Your task to perform on an android device: Open Google Chrome and click the shortcut for Amazon.com Image 0: 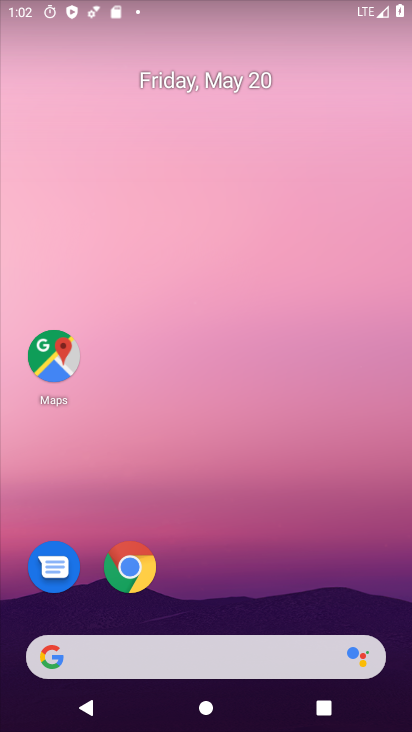
Step 0: click (143, 561)
Your task to perform on an android device: Open Google Chrome and click the shortcut for Amazon.com Image 1: 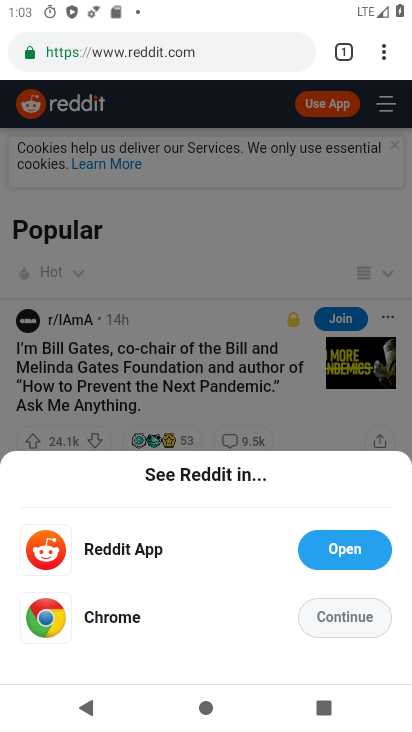
Step 1: click (344, 55)
Your task to perform on an android device: Open Google Chrome and click the shortcut for Amazon.com Image 2: 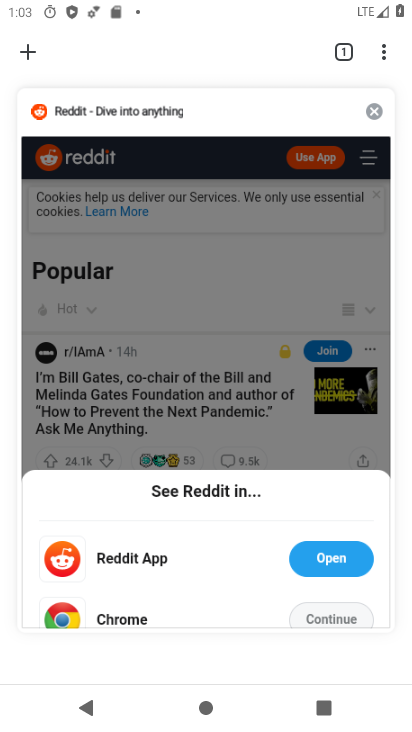
Step 2: click (26, 44)
Your task to perform on an android device: Open Google Chrome and click the shortcut for Amazon.com Image 3: 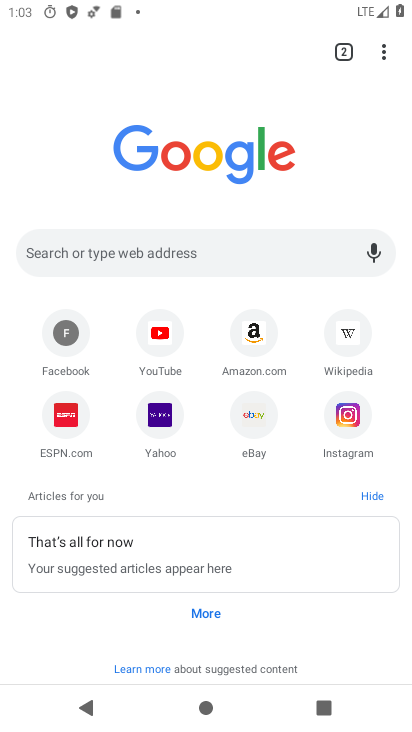
Step 3: click (254, 338)
Your task to perform on an android device: Open Google Chrome and click the shortcut for Amazon.com Image 4: 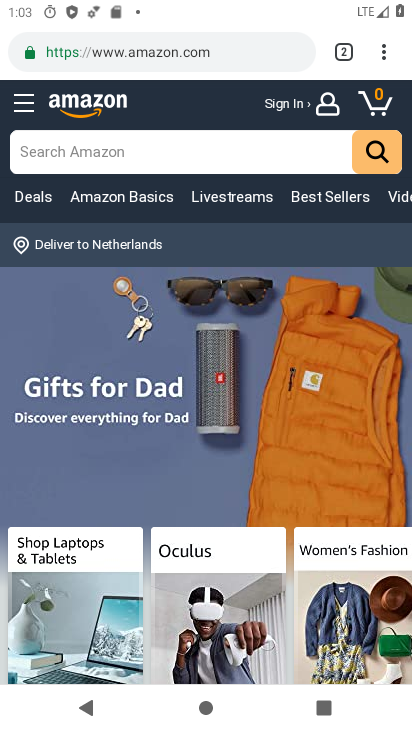
Step 4: task complete